Your task to perform on an android device: turn pop-ups off in chrome Image 0: 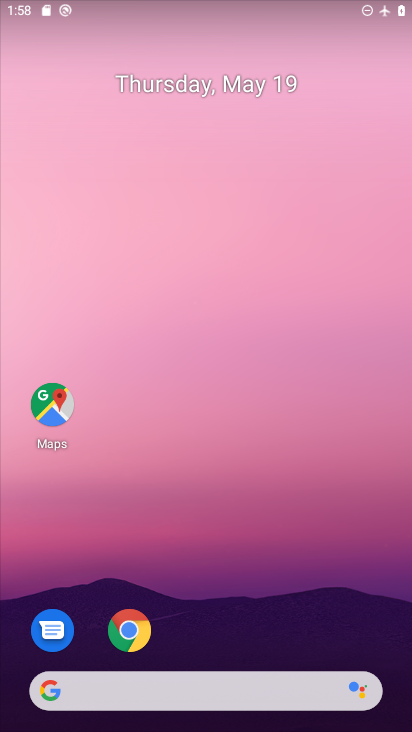
Step 0: click (134, 621)
Your task to perform on an android device: turn pop-ups off in chrome Image 1: 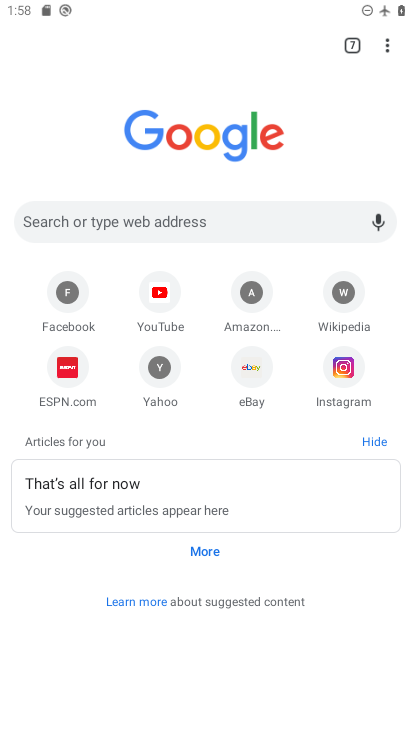
Step 1: click (390, 47)
Your task to perform on an android device: turn pop-ups off in chrome Image 2: 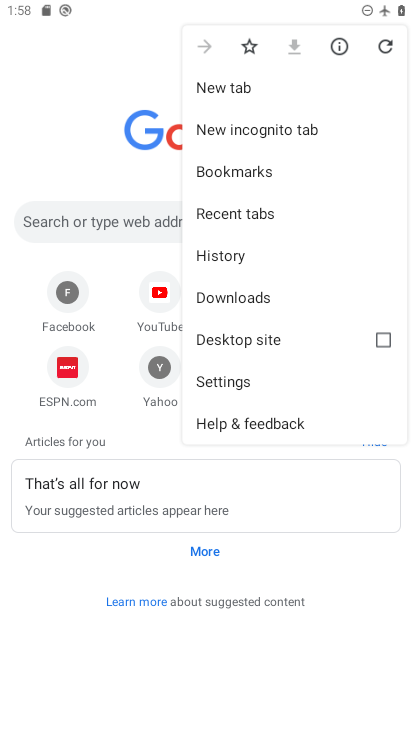
Step 2: click (220, 385)
Your task to perform on an android device: turn pop-ups off in chrome Image 3: 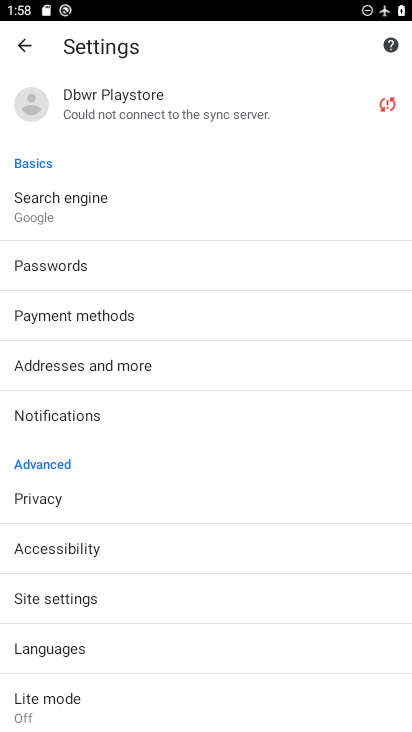
Step 3: click (108, 595)
Your task to perform on an android device: turn pop-ups off in chrome Image 4: 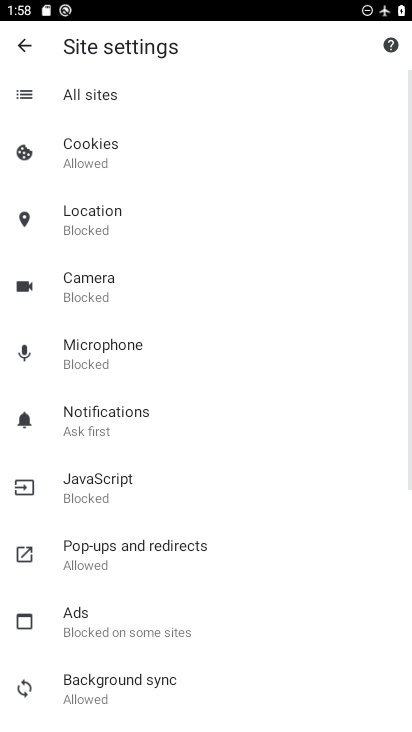
Step 4: click (122, 536)
Your task to perform on an android device: turn pop-ups off in chrome Image 5: 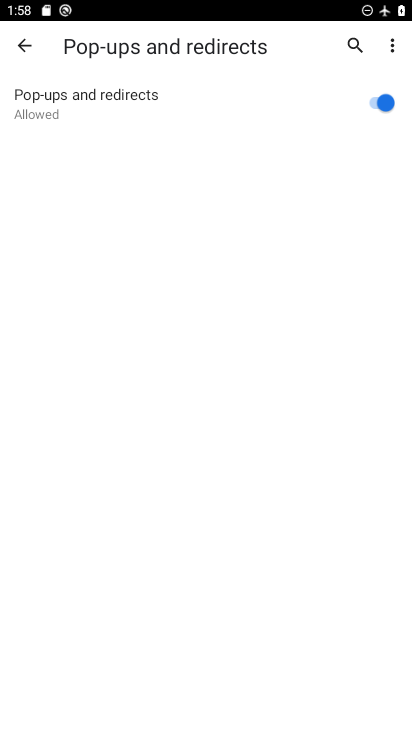
Step 5: click (385, 106)
Your task to perform on an android device: turn pop-ups off in chrome Image 6: 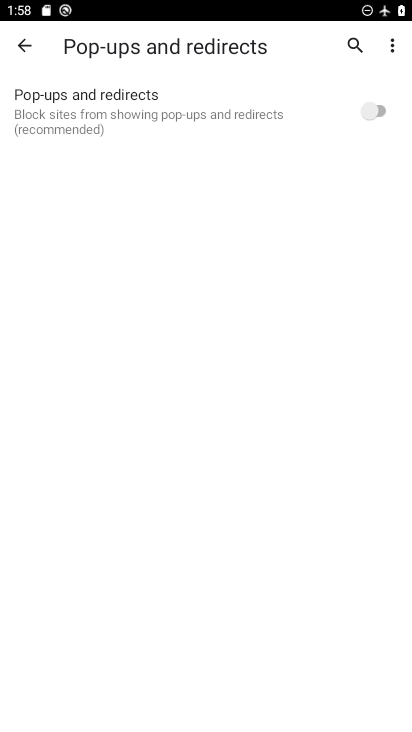
Step 6: task complete